Your task to perform on an android device: add a label to a message in the gmail app Image 0: 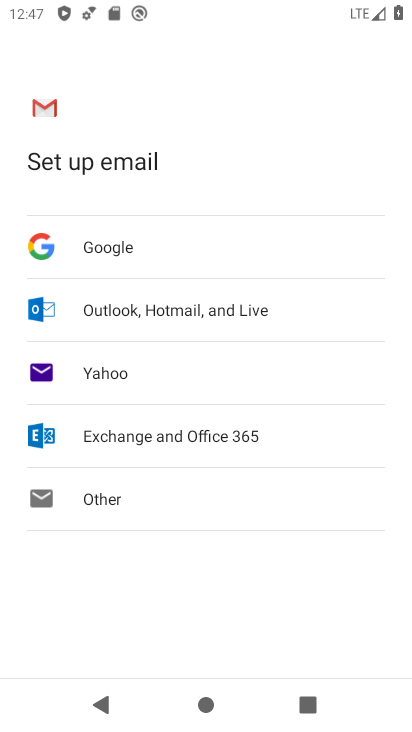
Step 0: press home button
Your task to perform on an android device: add a label to a message in the gmail app Image 1: 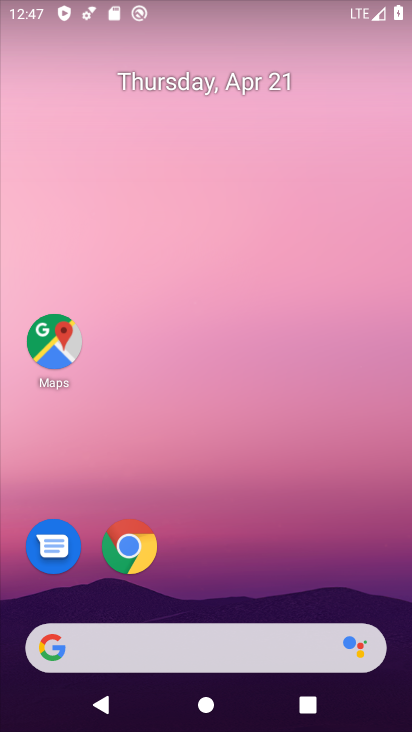
Step 1: drag from (334, 577) to (328, 215)
Your task to perform on an android device: add a label to a message in the gmail app Image 2: 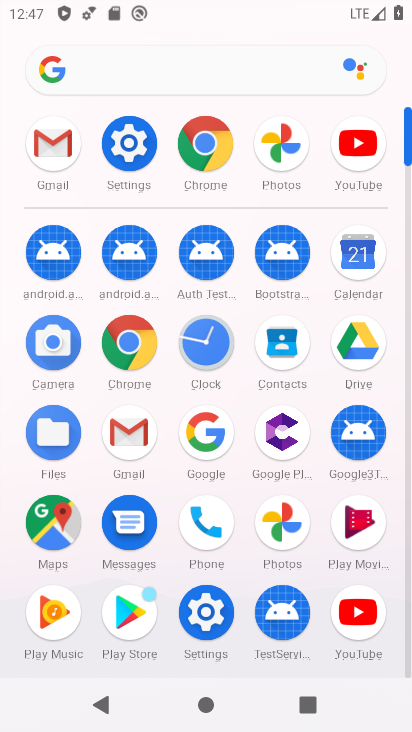
Step 2: click (61, 167)
Your task to perform on an android device: add a label to a message in the gmail app Image 3: 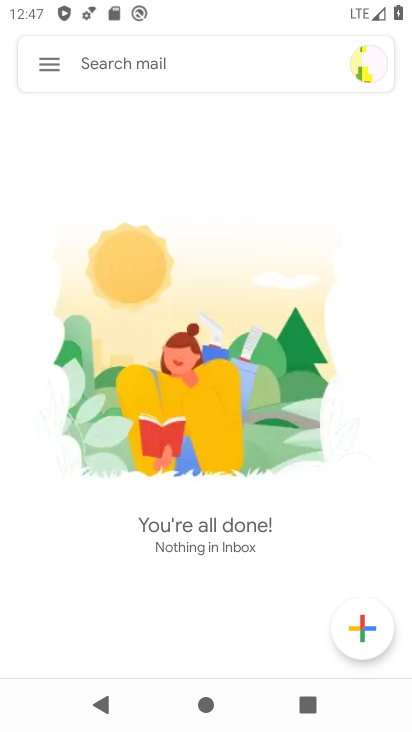
Step 3: task complete